Your task to perform on an android device: Do I have any events today? Image 0: 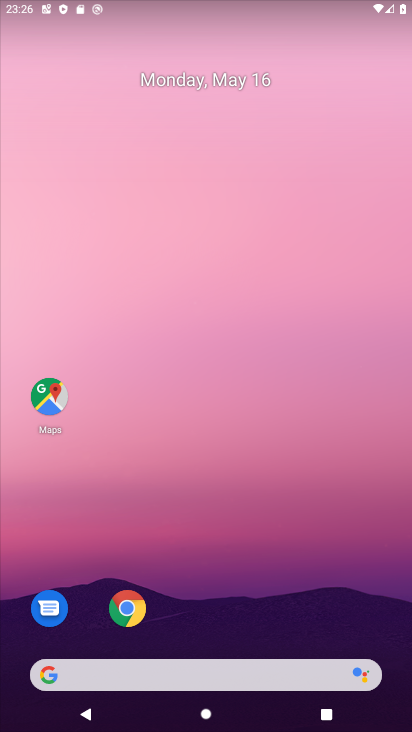
Step 0: press home button
Your task to perform on an android device: Do I have any events today? Image 1: 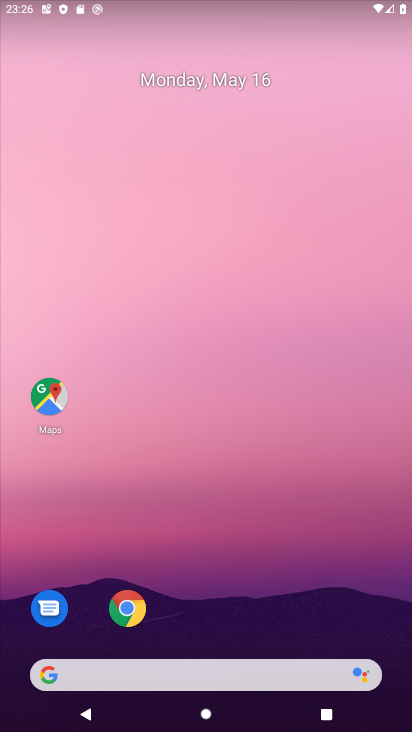
Step 1: drag from (197, 684) to (310, 238)
Your task to perform on an android device: Do I have any events today? Image 2: 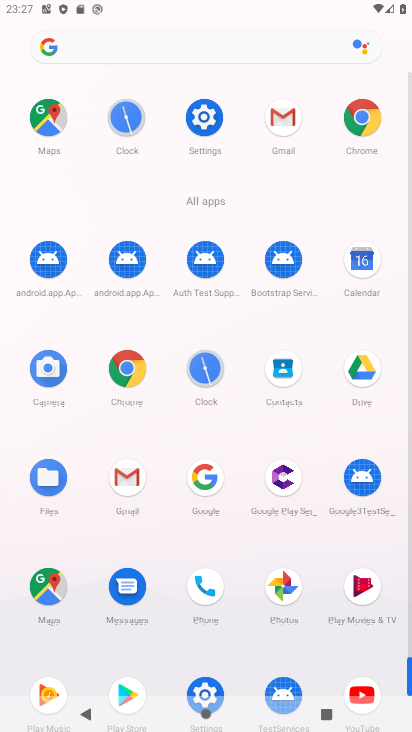
Step 2: click (362, 263)
Your task to perform on an android device: Do I have any events today? Image 3: 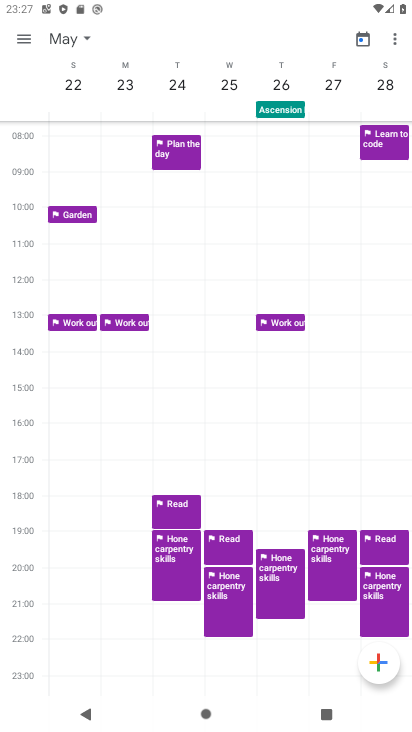
Step 3: click (62, 30)
Your task to perform on an android device: Do I have any events today? Image 4: 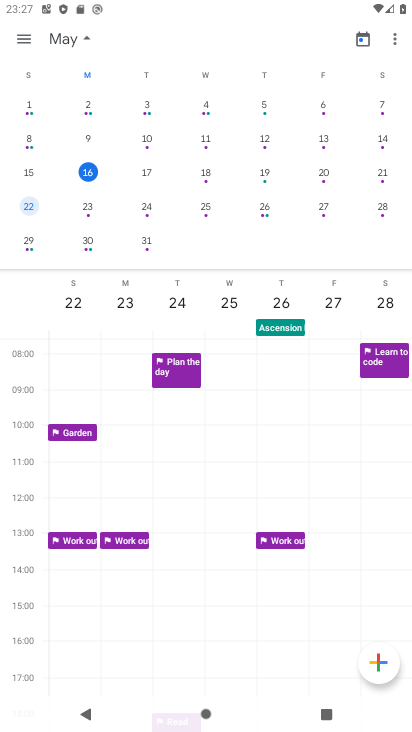
Step 4: click (92, 175)
Your task to perform on an android device: Do I have any events today? Image 5: 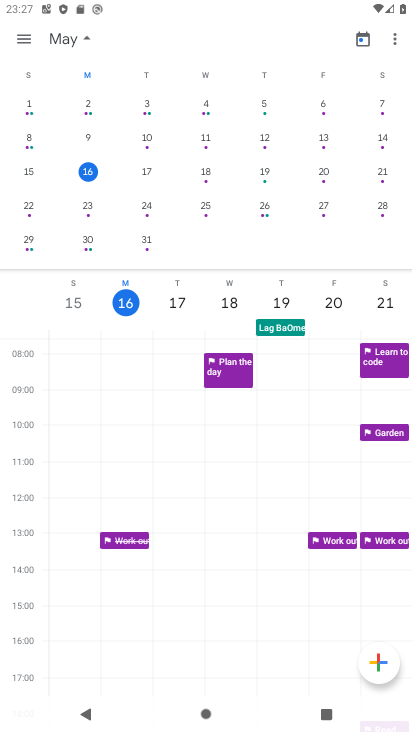
Step 5: click (26, 38)
Your task to perform on an android device: Do I have any events today? Image 6: 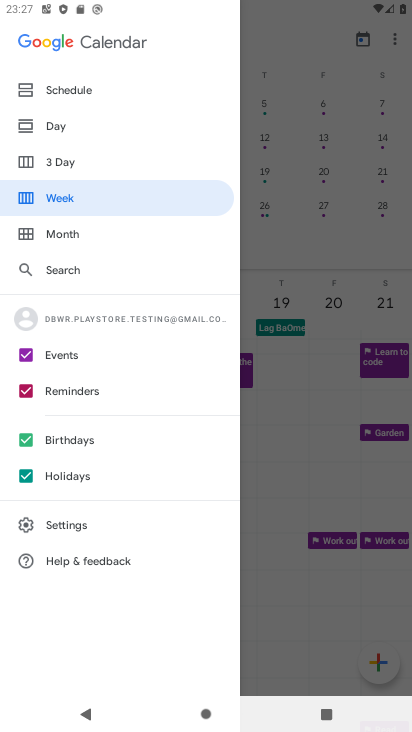
Step 6: click (59, 133)
Your task to perform on an android device: Do I have any events today? Image 7: 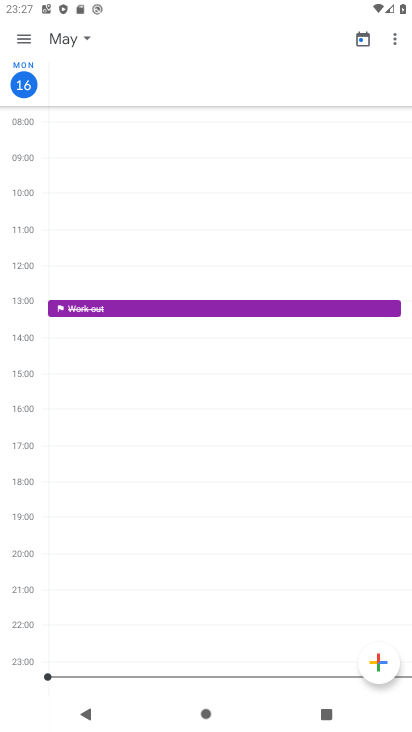
Step 7: click (23, 25)
Your task to perform on an android device: Do I have any events today? Image 8: 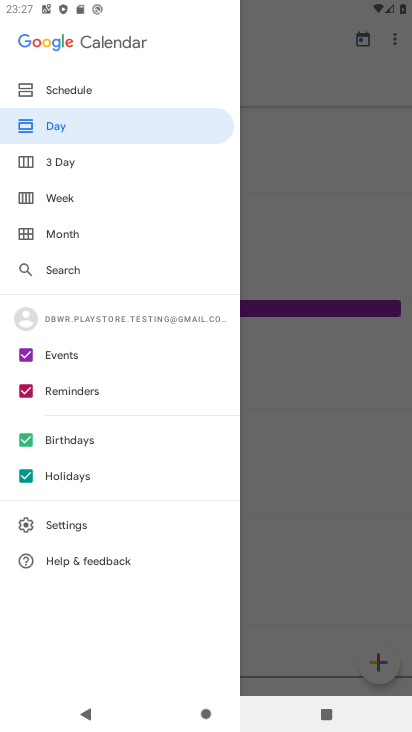
Step 8: click (75, 88)
Your task to perform on an android device: Do I have any events today? Image 9: 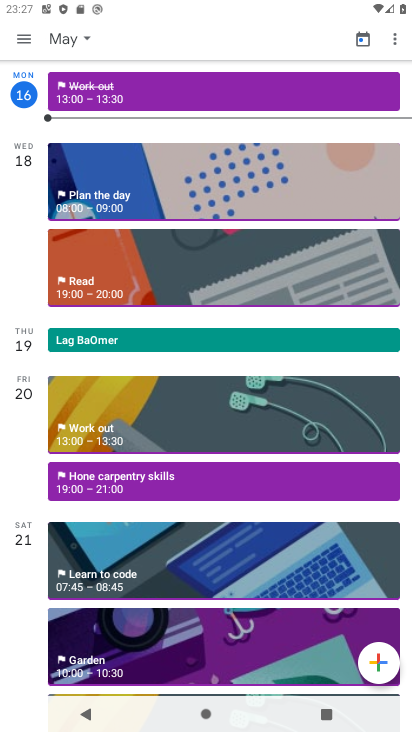
Step 9: click (122, 94)
Your task to perform on an android device: Do I have any events today? Image 10: 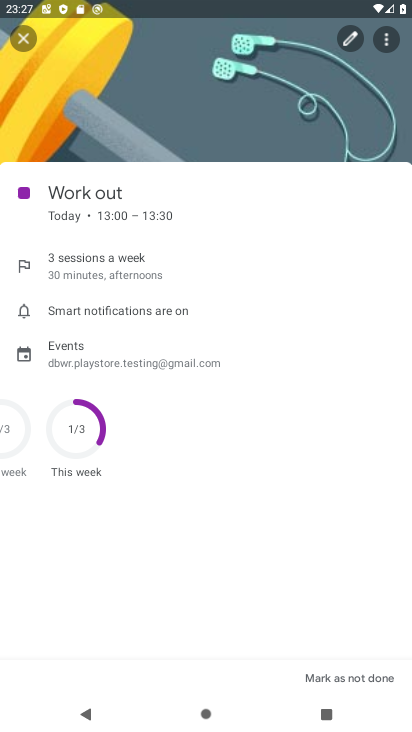
Step 10: task complete